Your task to perform on an android device: Open Google Chrome Image 0: 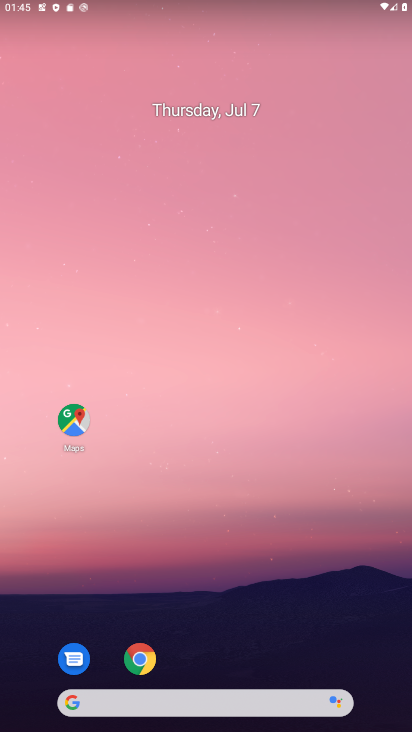
Step 0: click (145, 658)
Your task to perform on an android device: Open Google Chrome Image 1: 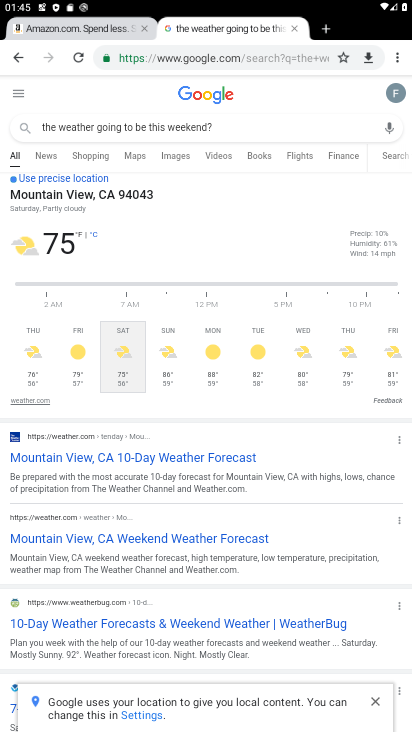
Step 1: task complete